Your task to perform on an android device: Open Google Chrome and click the shortcut for Amazon.com Image 0: 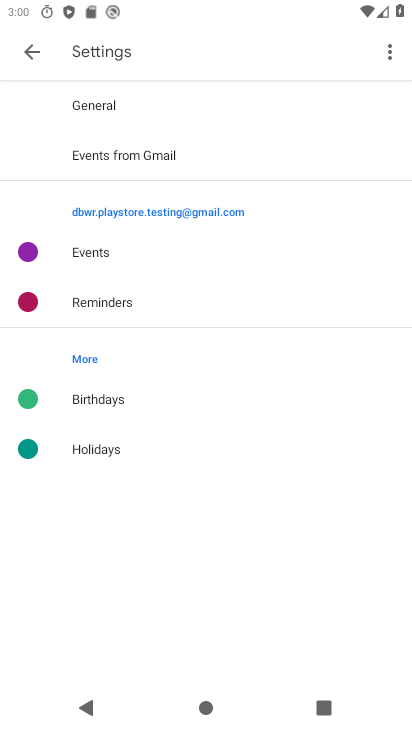
Step 0: press home button
Your task to perform on an android device: Open Google Chrome and click the shortcut for Amazon.com Image 1: 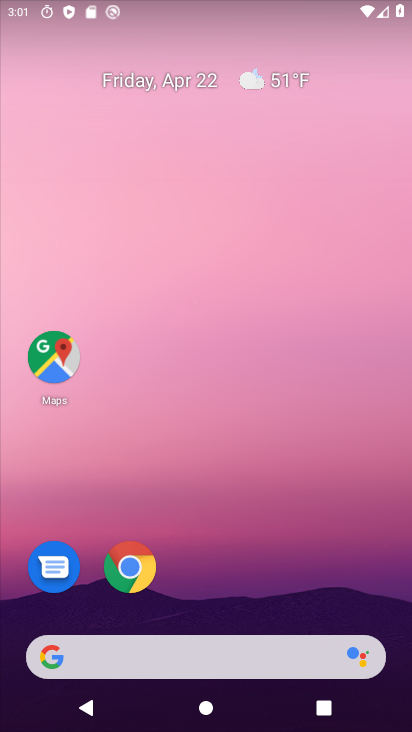
Step 1: click (141, 567)
Your task to perform on an android device: Open Google Chrome and click the shortcut for Amazon.com Image 2: 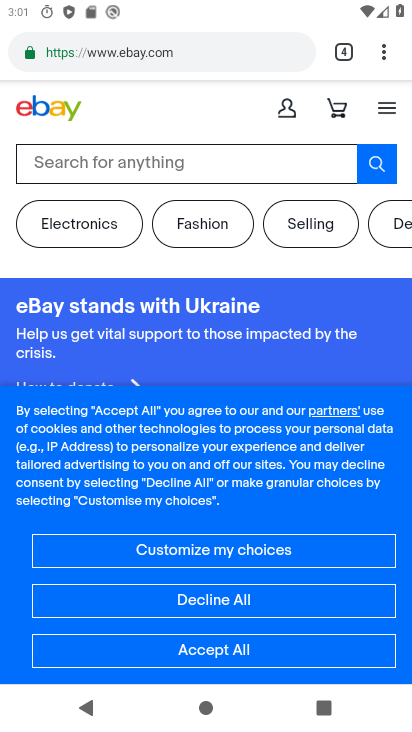
Step 2: click (348, 50)
Your task to perform on an android device: Open Google Chrome and click the shortcut for Amazon.com Image 3: 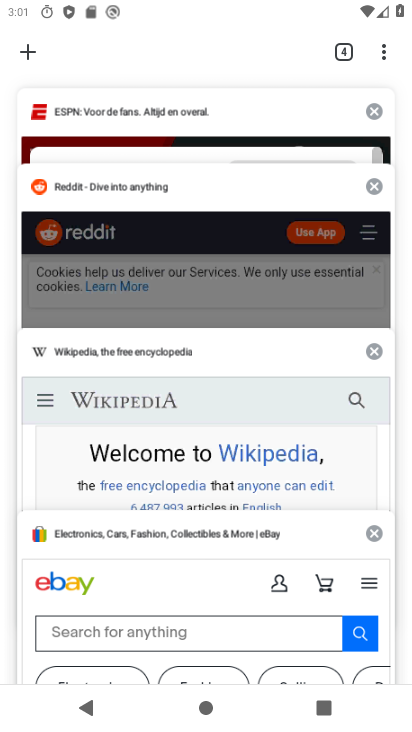
Step 3: click (25, 49)
Your task to perform on an android device: Open Google Chrome and click the shortcut for Amazon.com Image 4: 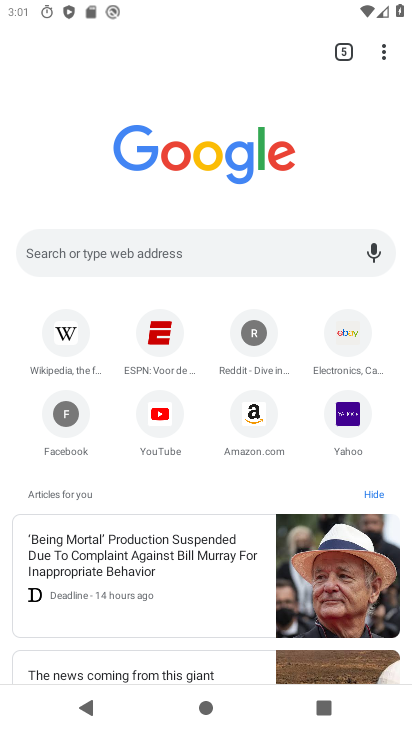
Step 4: click (251, 412)
Your task to perform on an android device: Open Google Chrome and click the shortcut for Amazon.com Image 5: 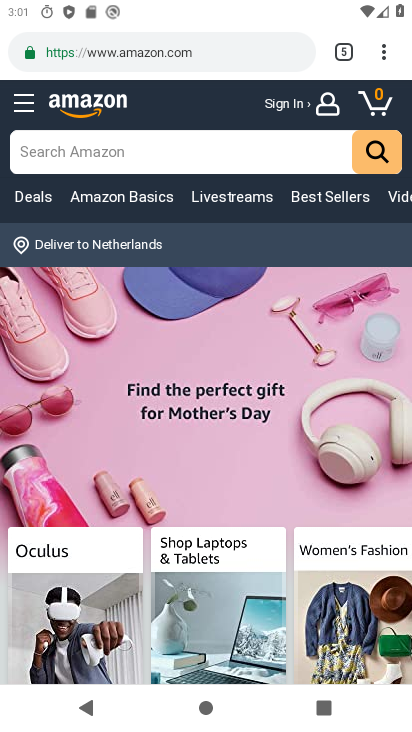
Step 5: task complete